Your task to perform on an android device: turn on the 12-hour format for clock Image 0: 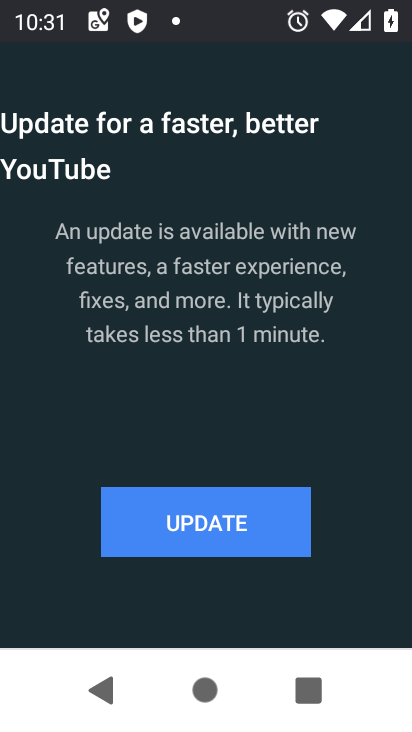
Step 0: press home button
Your task to perform on an android device: turn on the 12-hour format for clock Image 1: 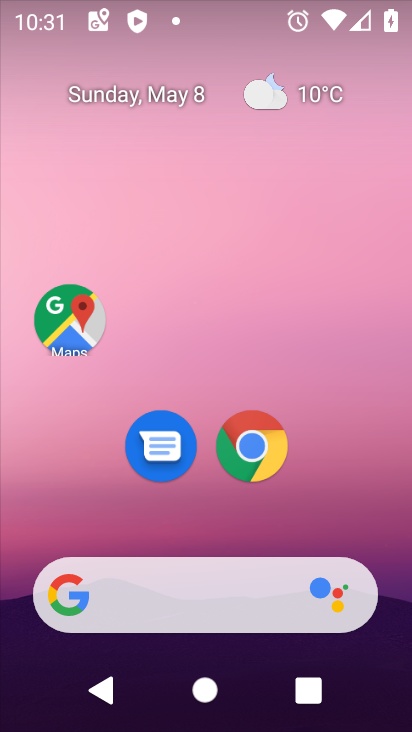
Step 1: drag from (383, 520) to (411, 12)
Your task to perform on an android device: turn on the 12-hour format for clock Image 2: 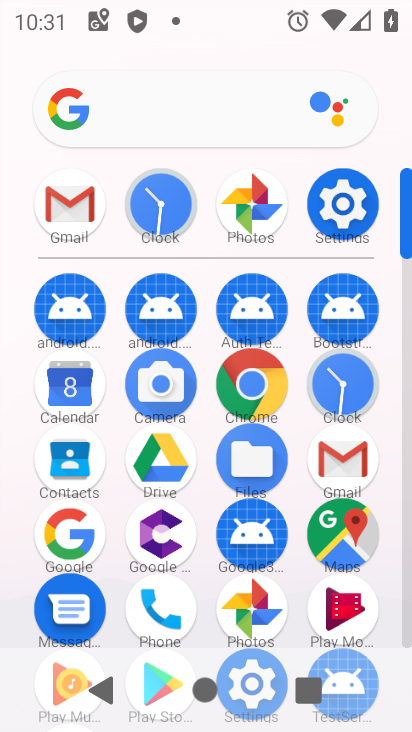
Step 2: click (157, 213)
Your task to perform on an android device: turn on the 12-hour format for clock Image 3: 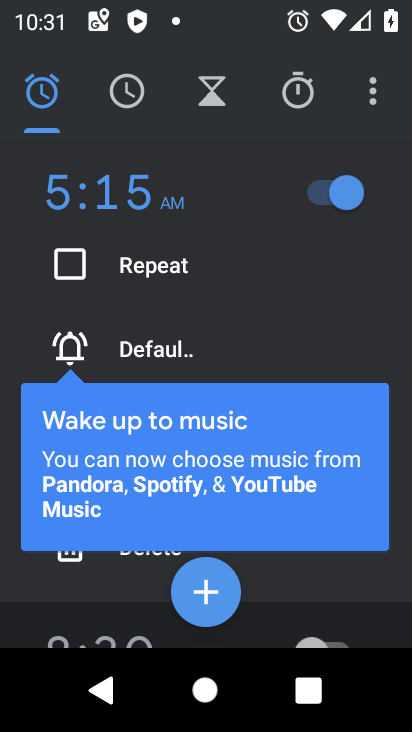
Step 3: click (375, 94)
Your task to perform on an android device: turn on the 12-hour format for clock Image 4: 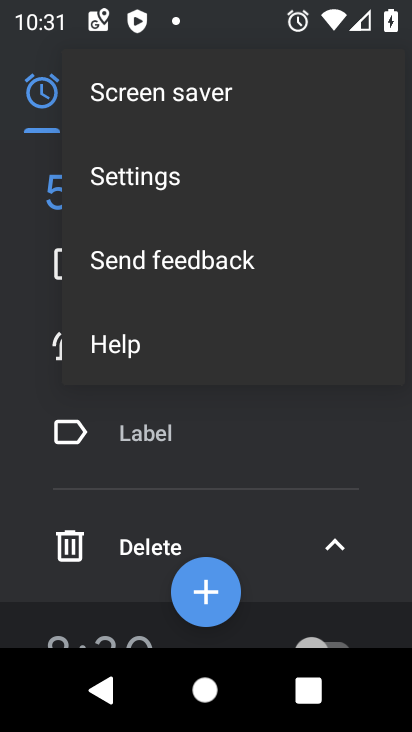
Step 4: click (132, 182)
Your task to perform on an android device: turn on the 12-hour format for clock Image 5: 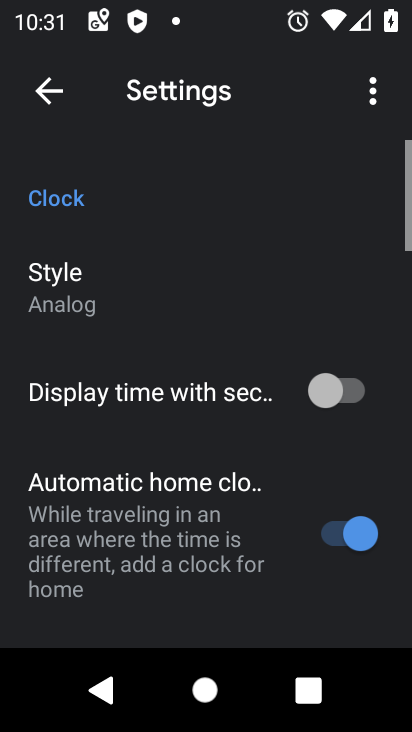
Step 5: drag from (210, 469) to (187, 139)
Your task to perform on an android device: turn on the 12-hour format for clock Image 6: 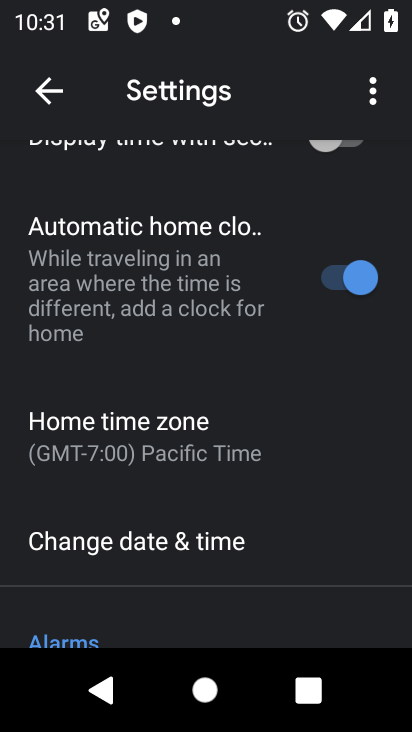
Step 6: drag from (176, 508) to (189, 138)
Your task to perform on an android device: turn on the 12-hour format for clock Image 7: 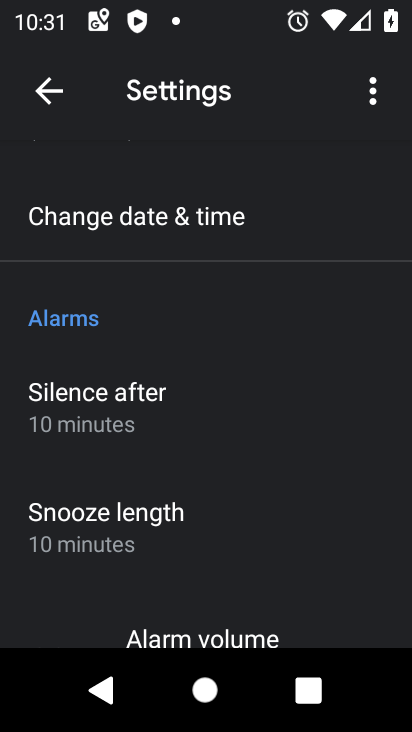
Step 7: click (130, 229)
Your task to perform on an android device: turn on the 12-hour format for clock Image 8: 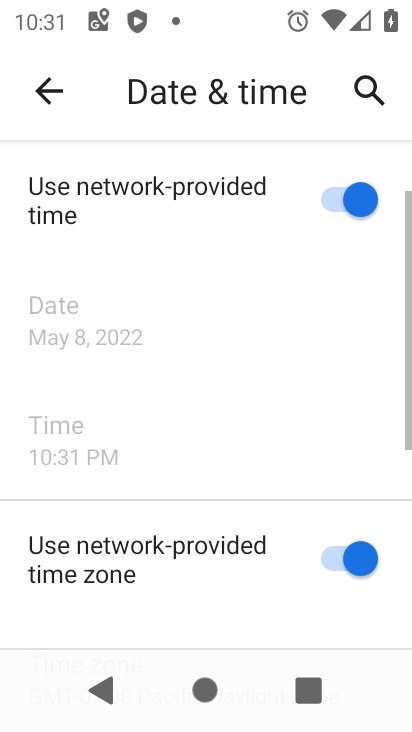
Step 8: task complete